Your task to perform on an android device: add a contact in the contacts app Image 0: 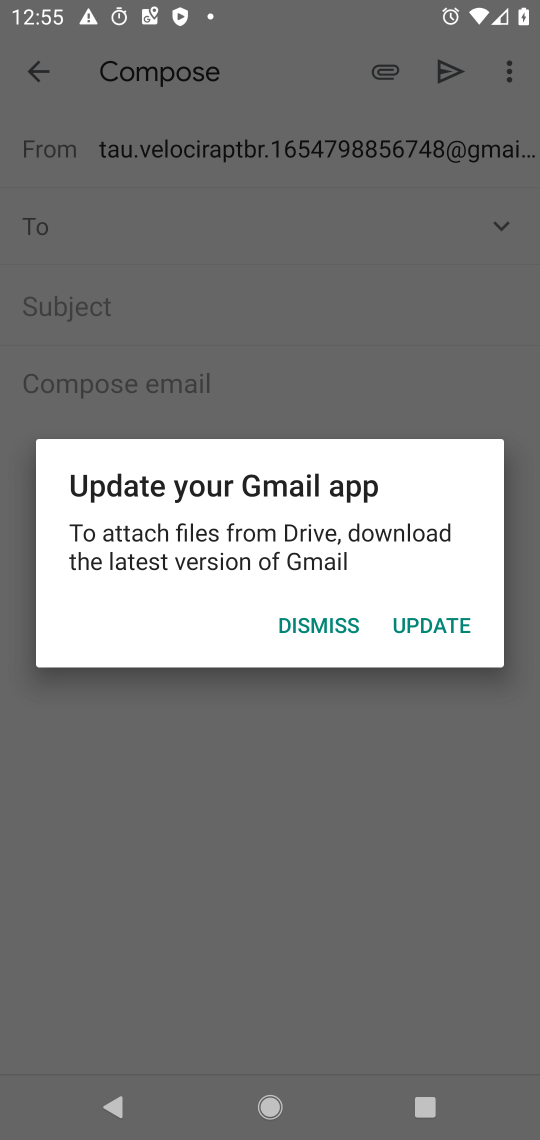
Step 0: press home button
Your task to perform on an android device: add a contact in the contacts app Image 1: 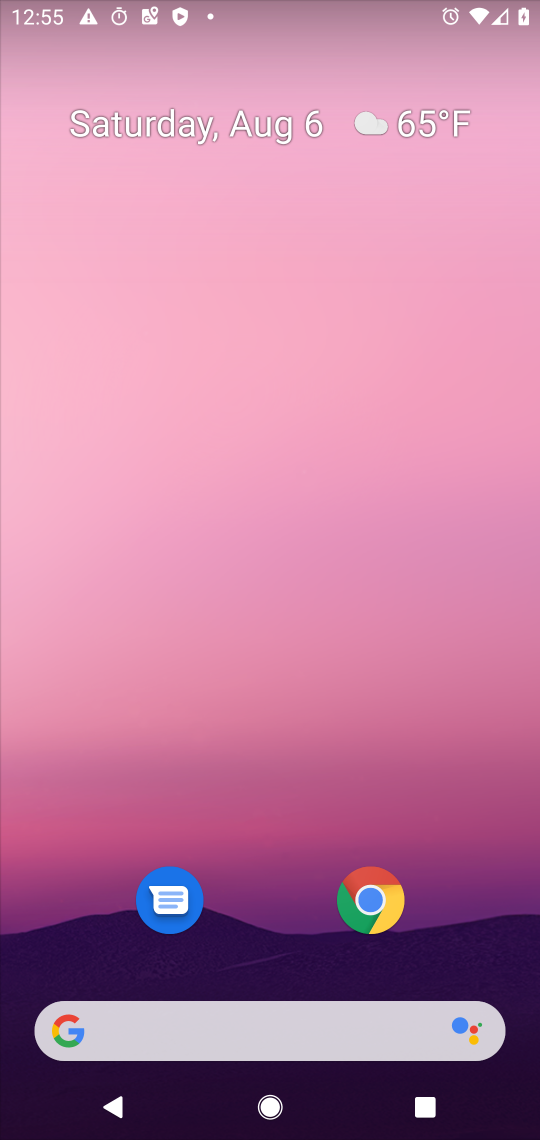
Step 1: drag from (263, 904) to (232, 98)
Your task to perform on an android device: add a contact in the contacts app Image 2: 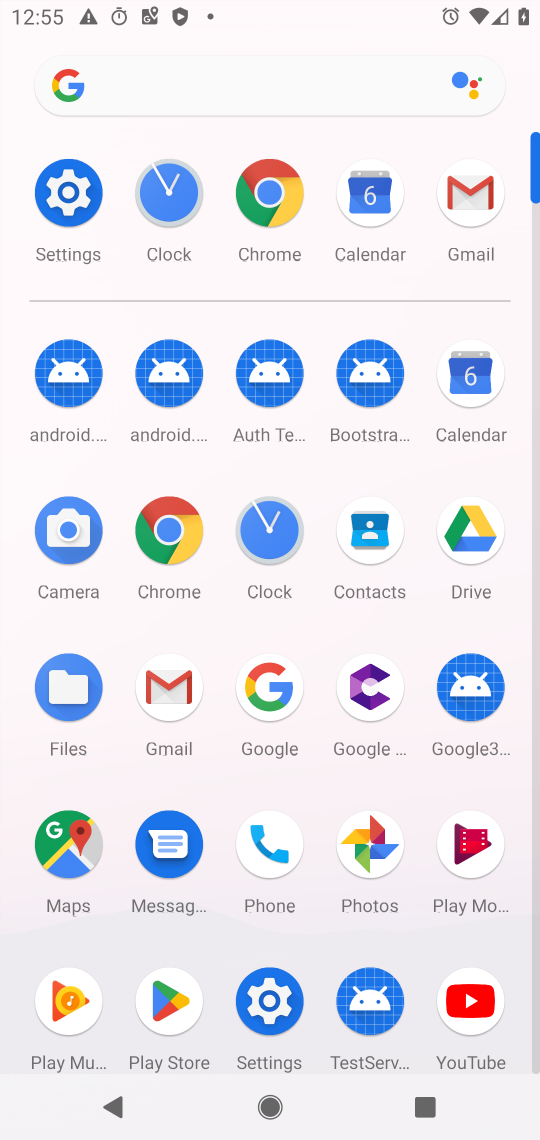
Step 2: click (364, 526)
Your task to perform on an android device: add a contact in the contacts app Image 3: 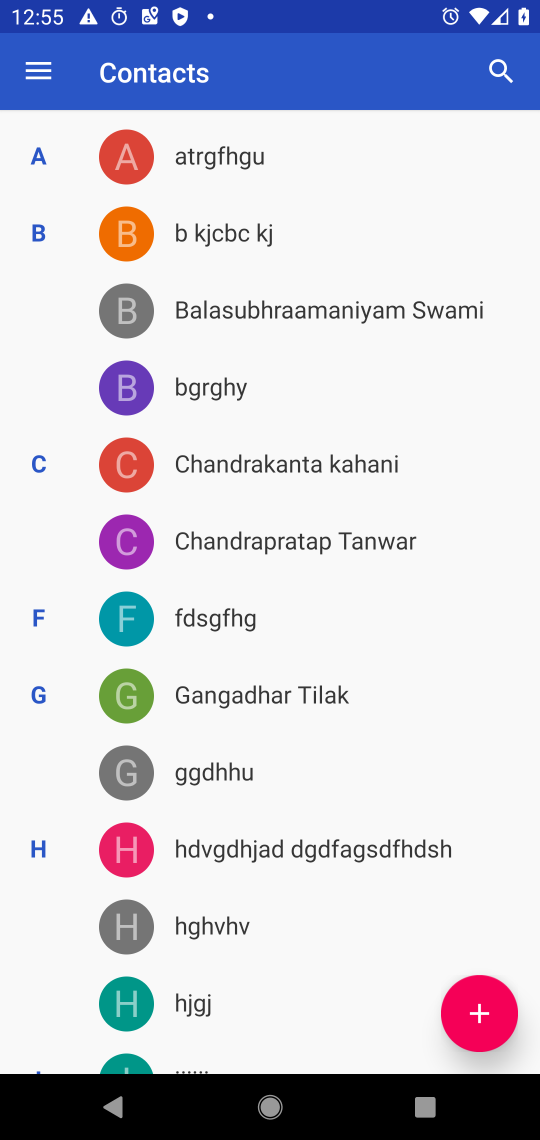
Step 3: click (478, 1013)
Your task to perform on an android device: add a contact in the contacts app Image 4: 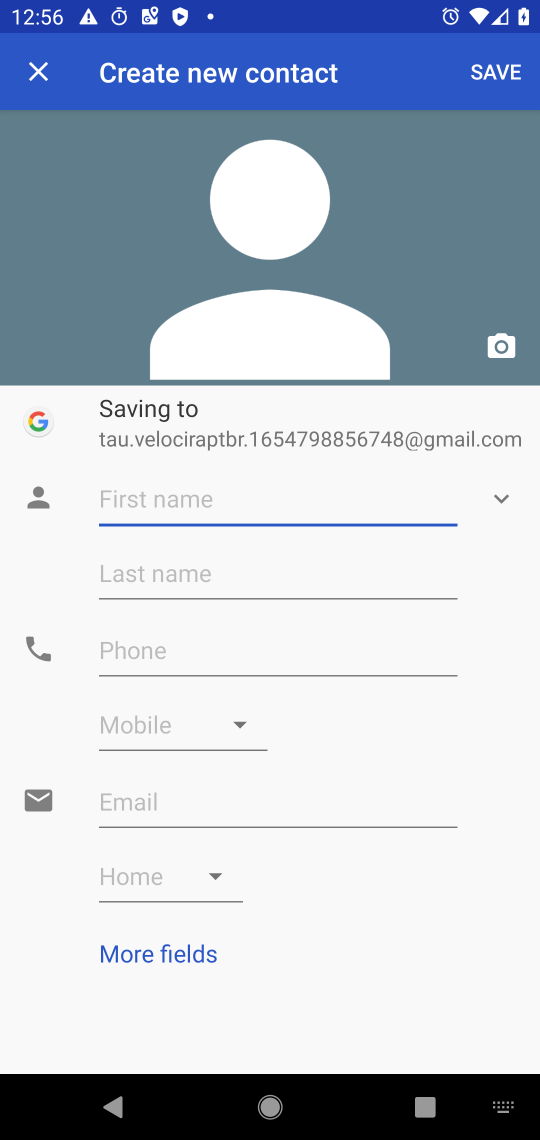
Step 4: type "noty"
Your task to perform on an android device: add a contact in the contacts app Image 5: 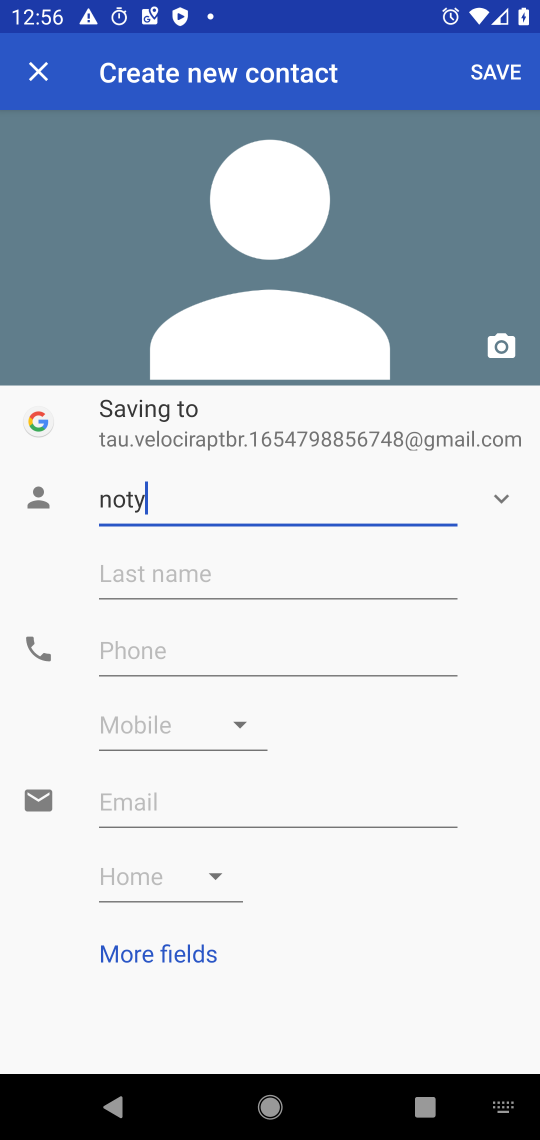
Step 5: type ""
Your task to perform on an android device: add a contact in the contacts app Image 6: 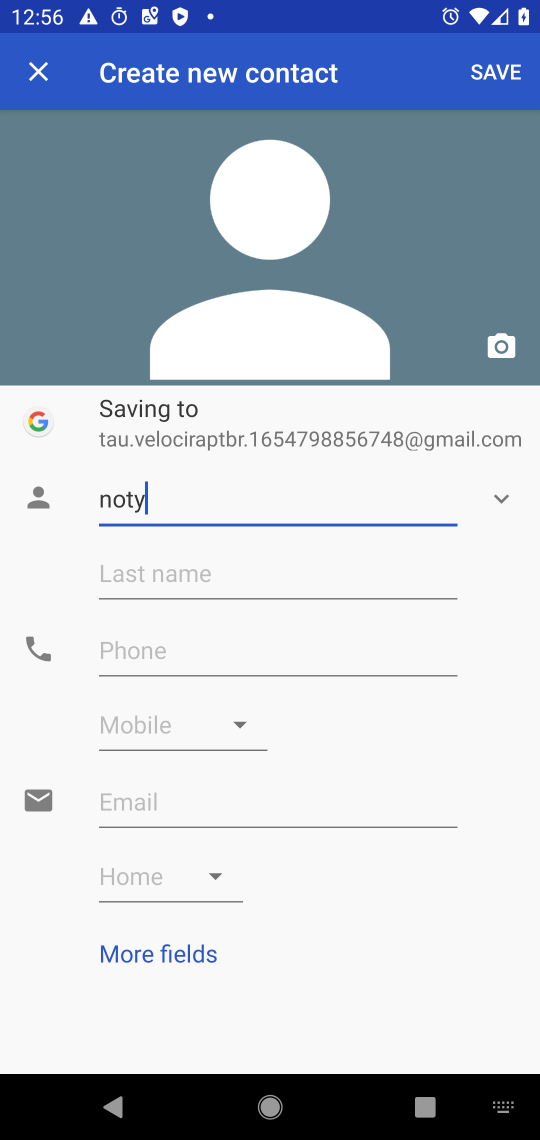
Step 6: click (162, 649)
Your task to perform on an android device: add a contact in the contacts app Image 7: 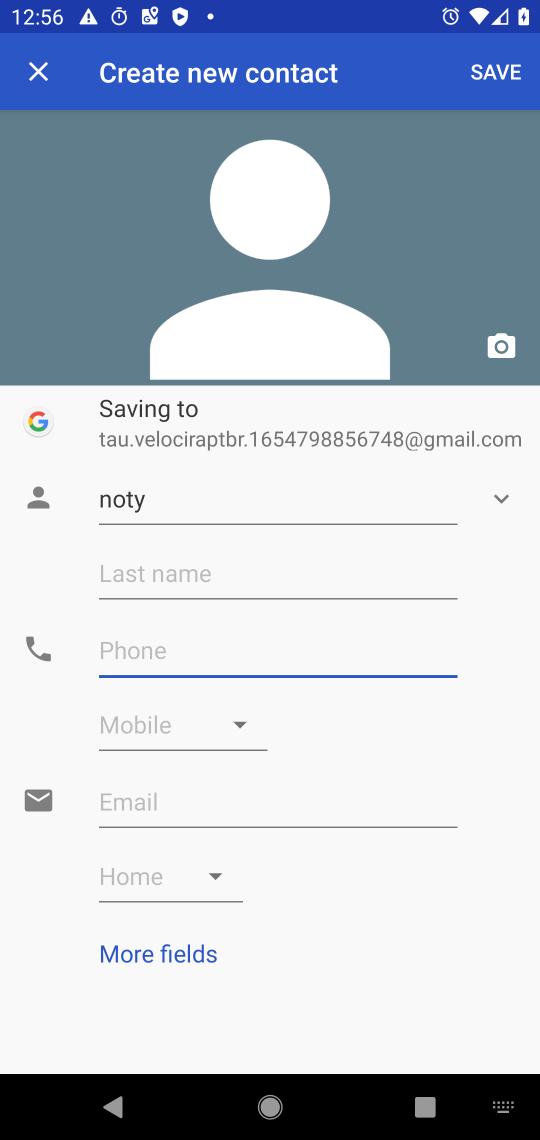
Step 7: type "9898989"
Your task to perform on an android device: add a contact in the contacts app Image 8: 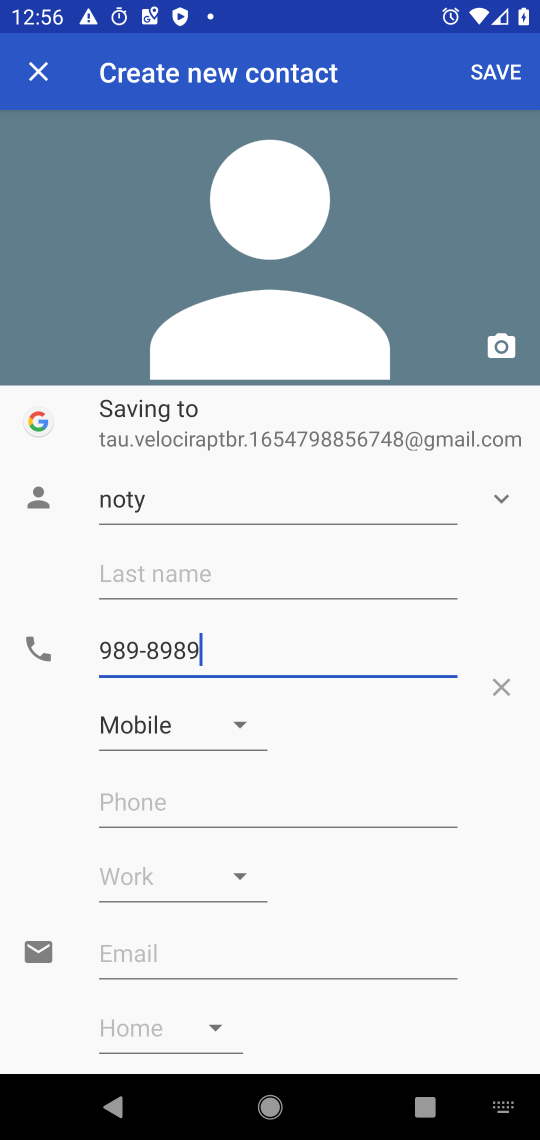
Step 8: type ""
Your task to perform on an android device: add a contact in the contacts app Image 9: 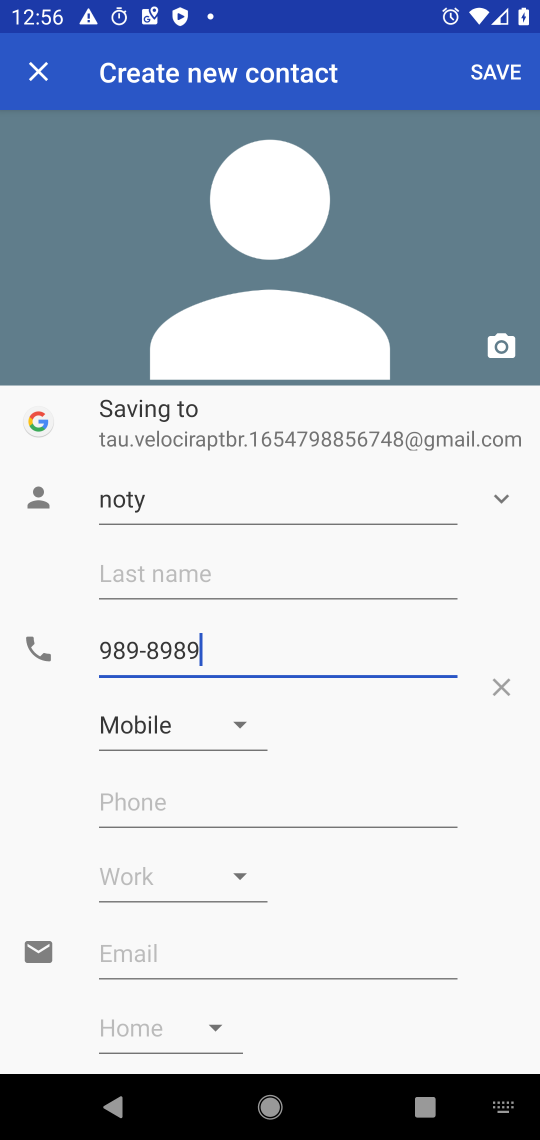
Step 9: click (498, 68)
Your task to perform on an android device: add a contact in the contacts app Image 10: 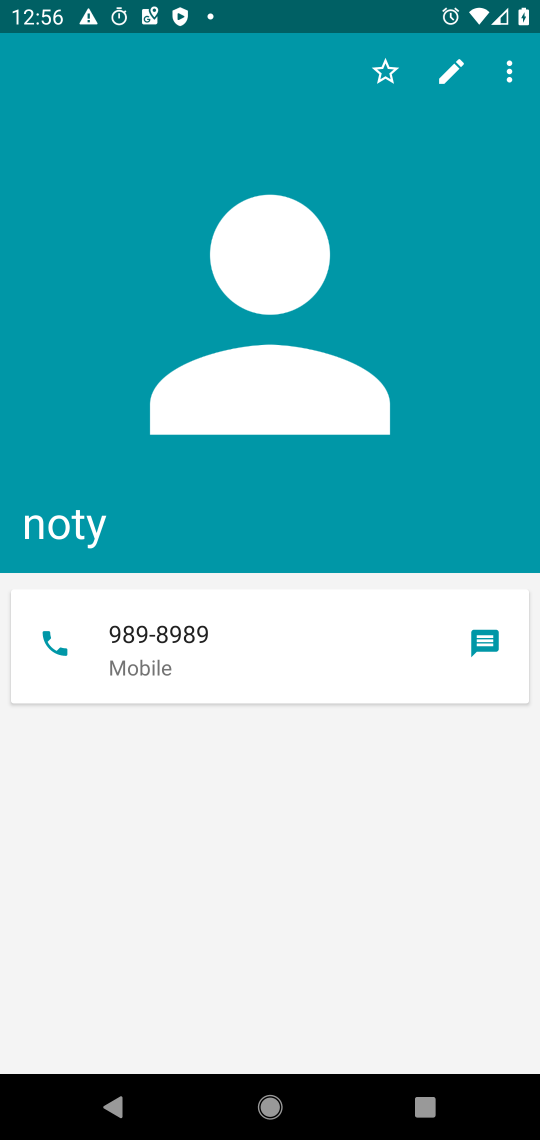
Step 10: task complete